Your task to perform on an android device: Open calendar and show me the third week of next month Image 0: 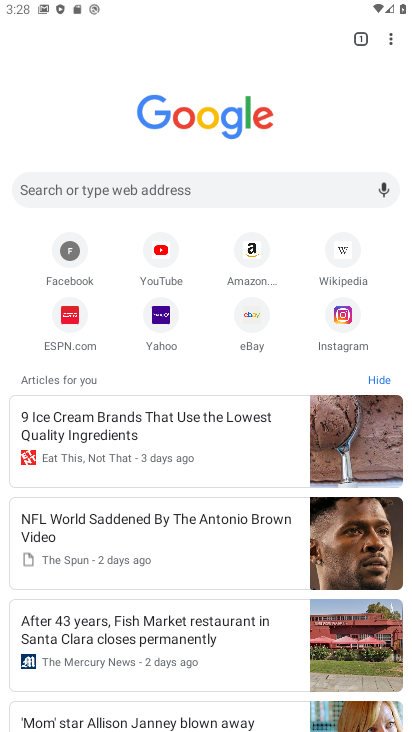
Step 0: press home button
Your task to perform on an android device: Open calendar and show me the third week of next month Image 1: 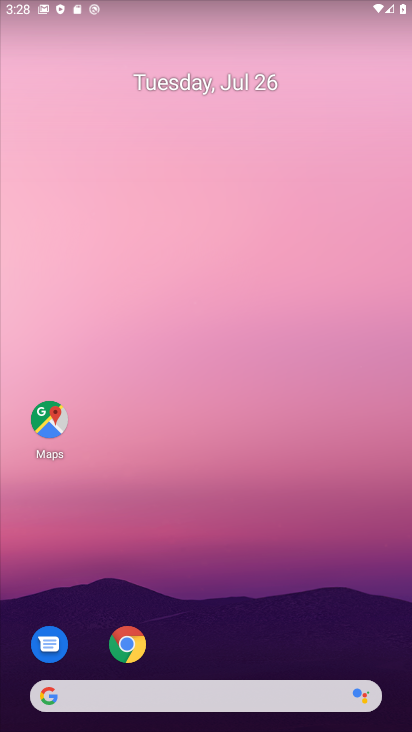
Step 1: drag from (397, 665) to (359, 147)
Your task to perform on an android device: Open calendar and show me the third week of next month Image 2: 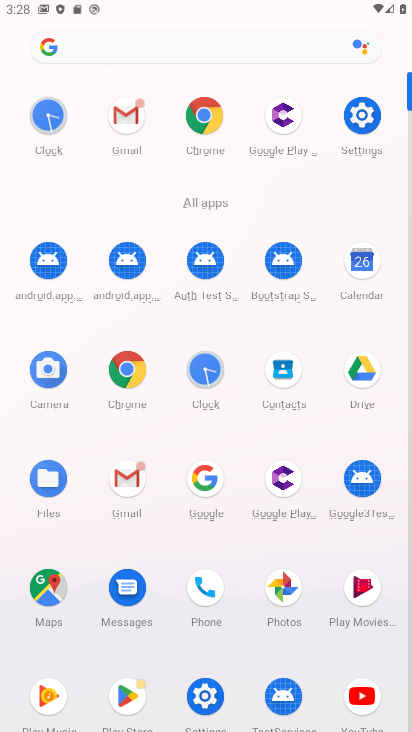
Step 2: click (362, 259)
Your task to perform on an android device: Open calendar and show me the third week of next month Image 3: 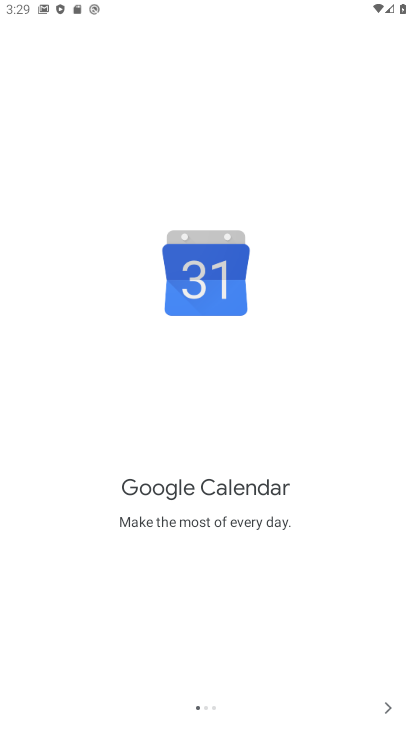
Step 3: click (387, 703)
Your task to perform on an android device: Open calendar and show me the third week of next month Image 4: 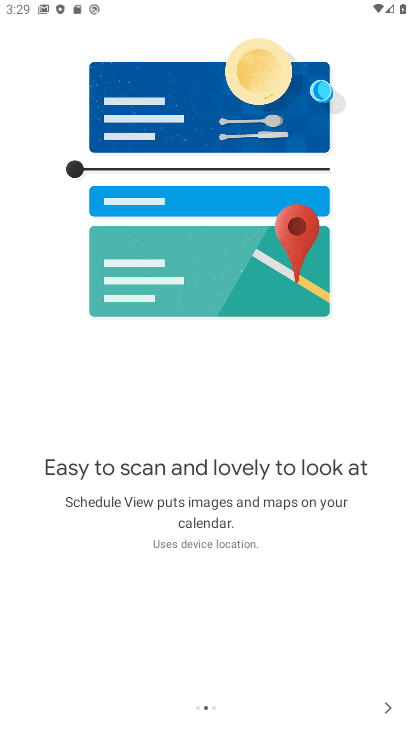
Step 4: click (385, 705)
Your task to perform on an android device: Open calendar and show me the third week of next month Image 5: 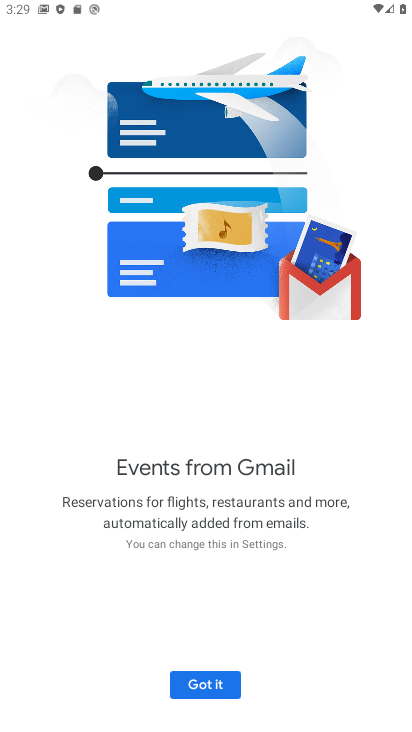
Step 5: click (205, 685)
Your task to perform on an android device: Open calendar and show me the third week of next month Image 6: 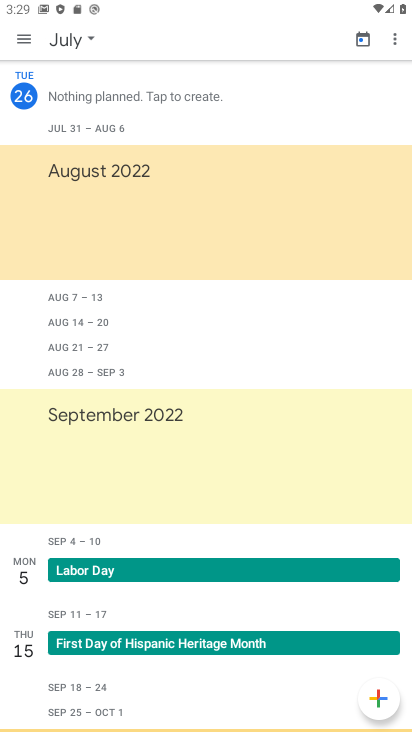
Step 6: click (23, 32)
Your task to perform on an android device: Open calendar and show me the third week of next month Image 7: 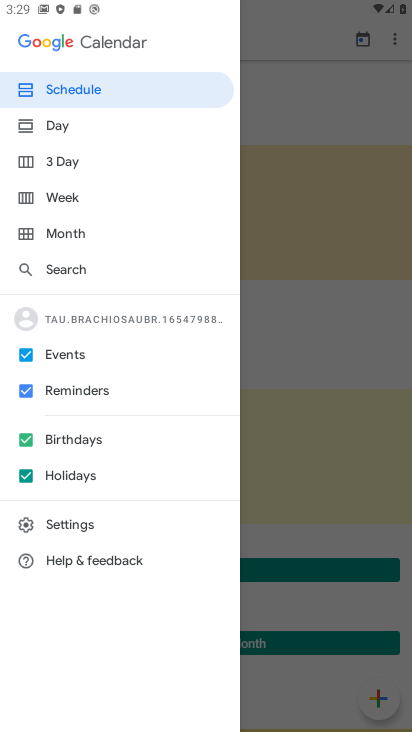
Step 7: click (63, 198)
Your task to perform on an android device: Open calendar and show me the third week of next month Image 8: 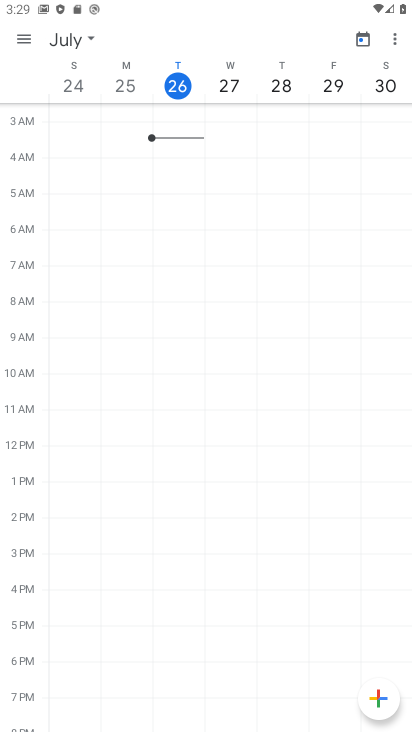
Step 8: click (90, 40)
Your task to perform on an android device: Open calendar and show me the third week of next month Image 9: 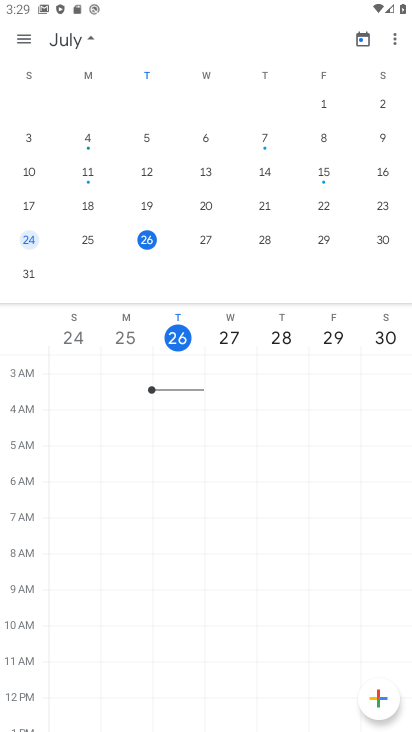
Step 9: drag from (385, 227) to (16, 199)
Your task to perform on an android device: Open calendar and show me the third week of next month Image 10: 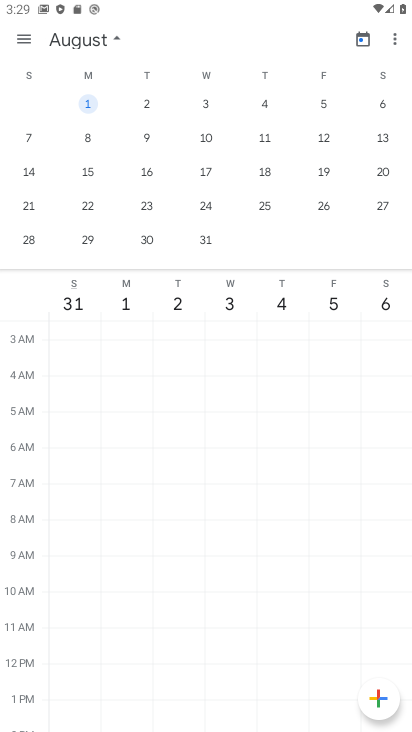
Step 10: click (33, 207)
Your task to perform on an android device: Open calendar and show me the third week of next month Image 11: 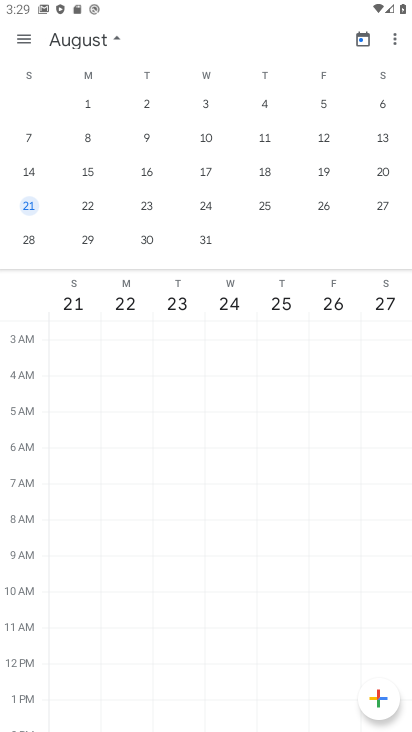
Step 11: task complete